Your task to perform on an android device: add a label to a message in the gmail app Image 0: 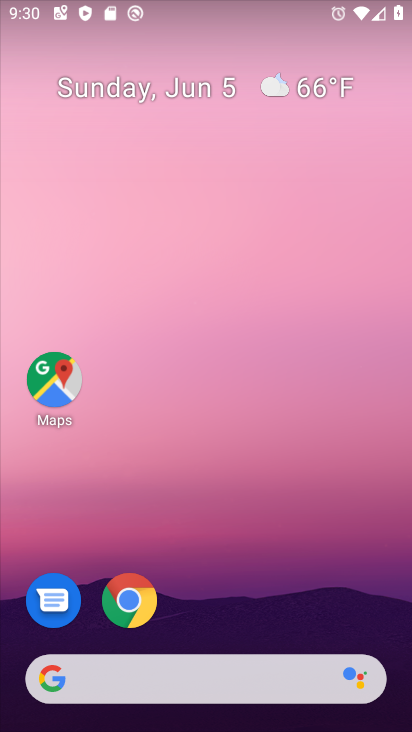
Step 0: drag from (360, 607) to (237, 31)
Your task to perform on an android device: add a label to a message in the gmail app Image 1: 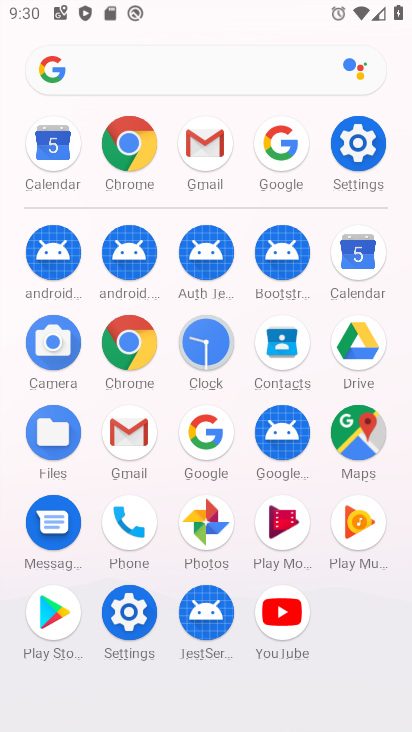
Step 1: click (137, 448)
Your task to perform on an android device: add a label to a message in the gmail app Image 2: 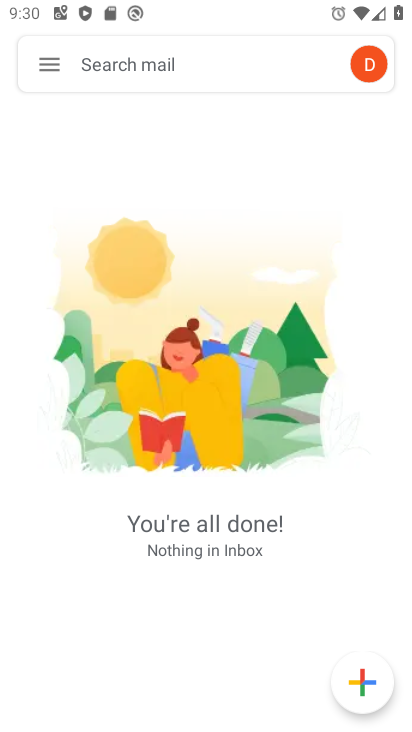
Step 2: task complete